Your task to perform on an android device: Open calendar and show me the fourth week of next month Image 0: 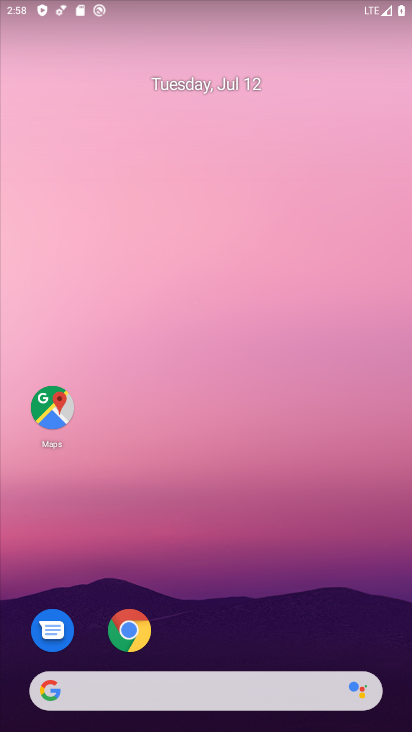
Step 0: drag from (231, 657) to (335, 0)
Your task to perform on an android device: Open calendar and show me the fourth week of next month Image 1: 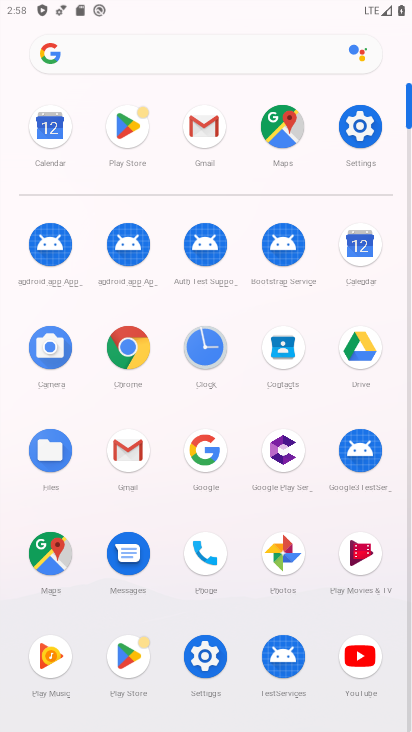
Step 1: click (364, 260)
Your task to perform on an android device: Open calendar and show me the fourth week of next month Image 2: 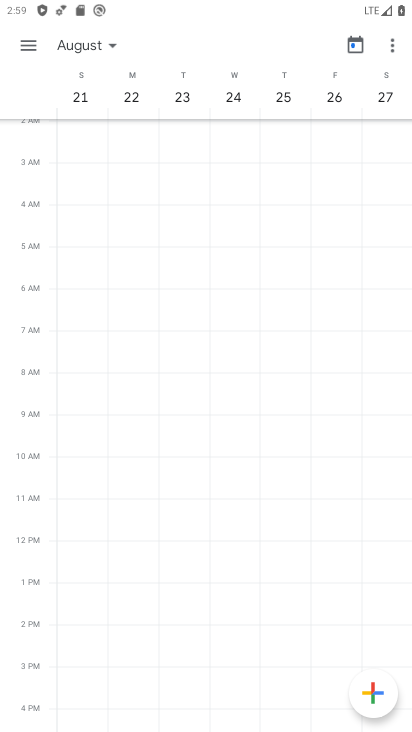
Step 2: task complete